Your task to perform on an android device: refresh tabs in the chrome app Image 0: 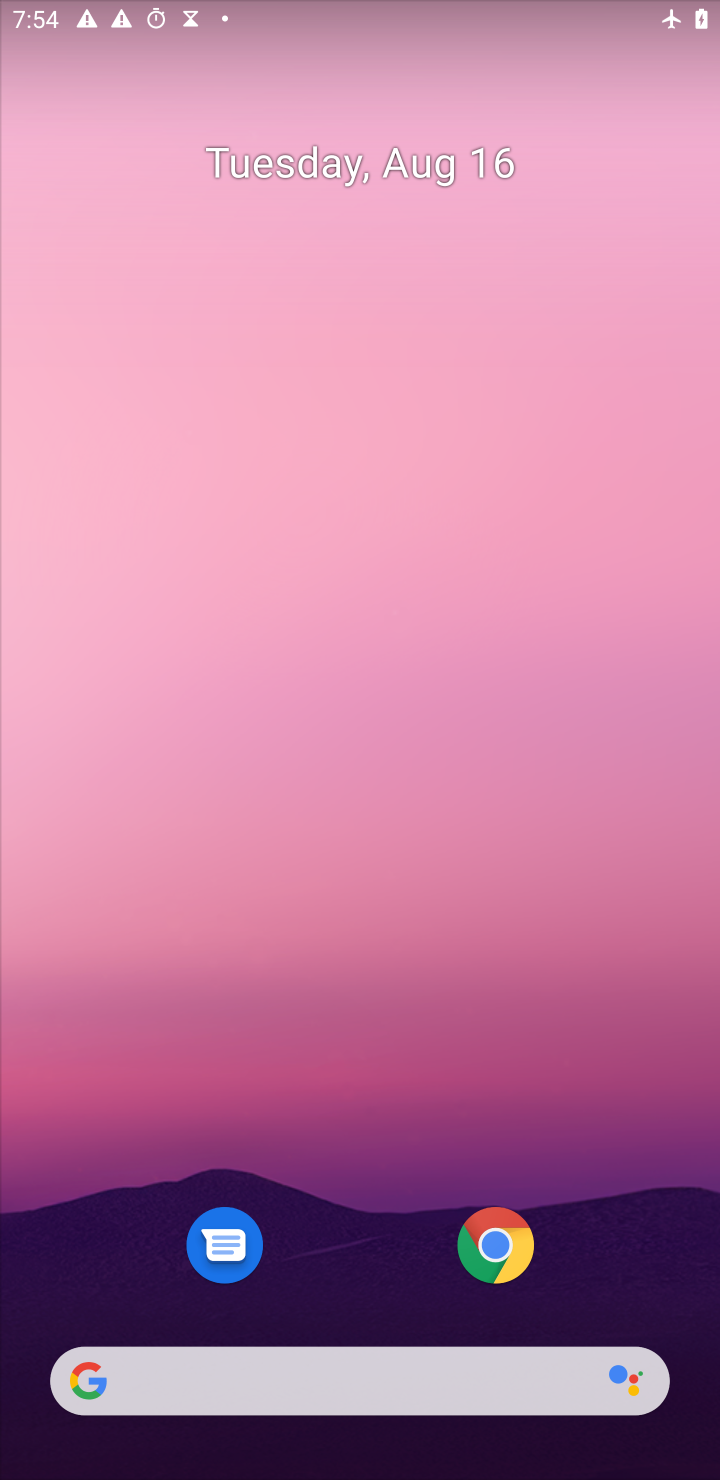
Step 0: press home button
Your task to perform on an android device: refresh tabs in the chrome app Image 1: 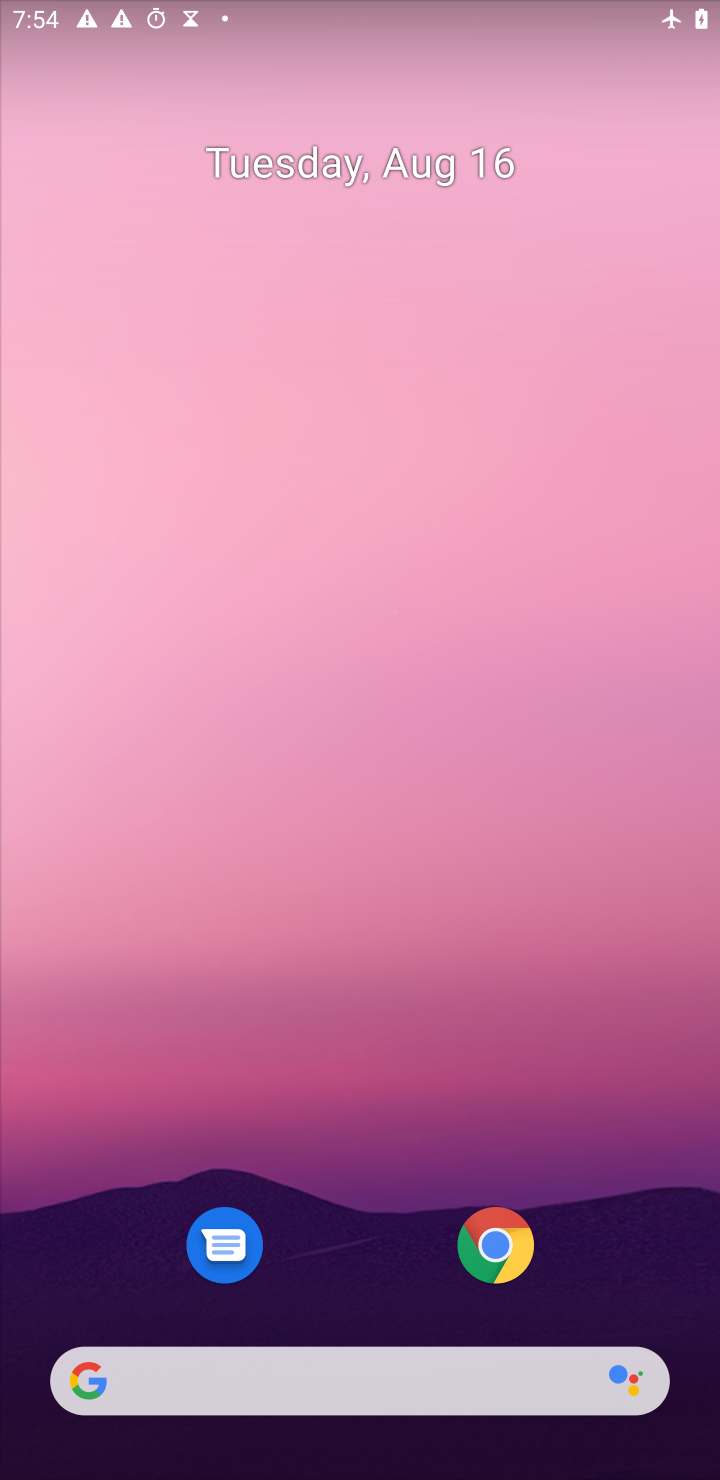
Step 1: drag from (532, 26) to (716, 1136)
Your task to perform on an android device: refresh tabs in the chrome app Image 2: 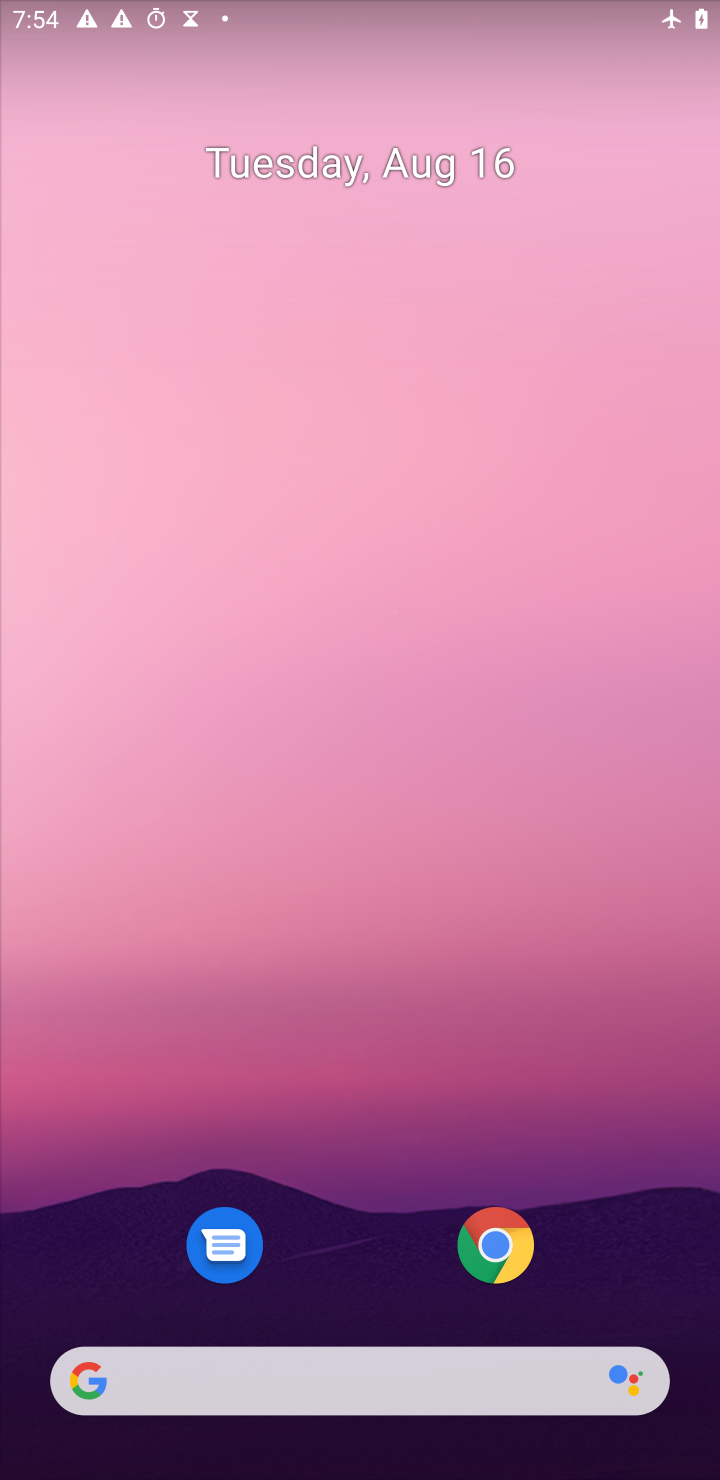
Step 2: click (500, 1263)
Your task to perform on an android device: refresh tabs in the chrome app Image 3: 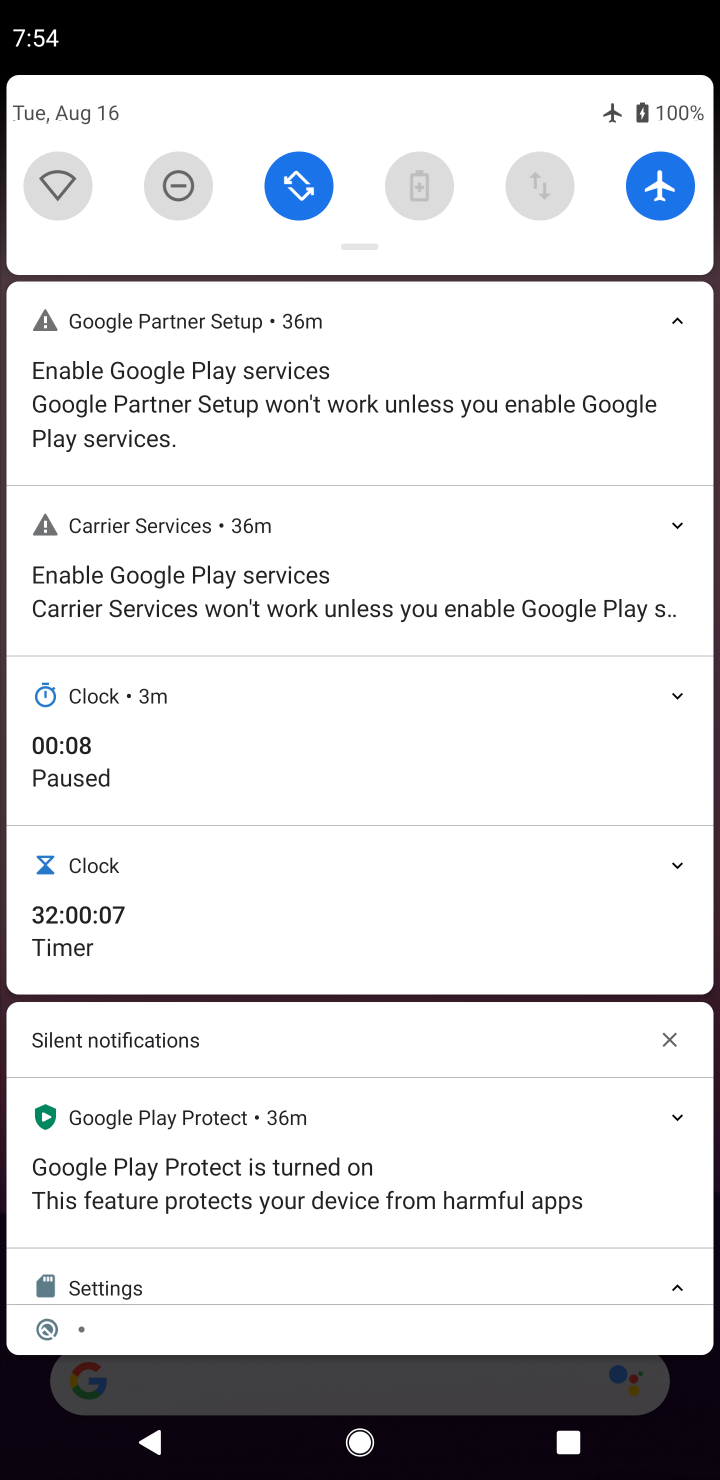
Step 3: drag from (416, 1384) to (374, 0)
Your task to perform on an android device: refresh tabs in the chrome app Image 4: 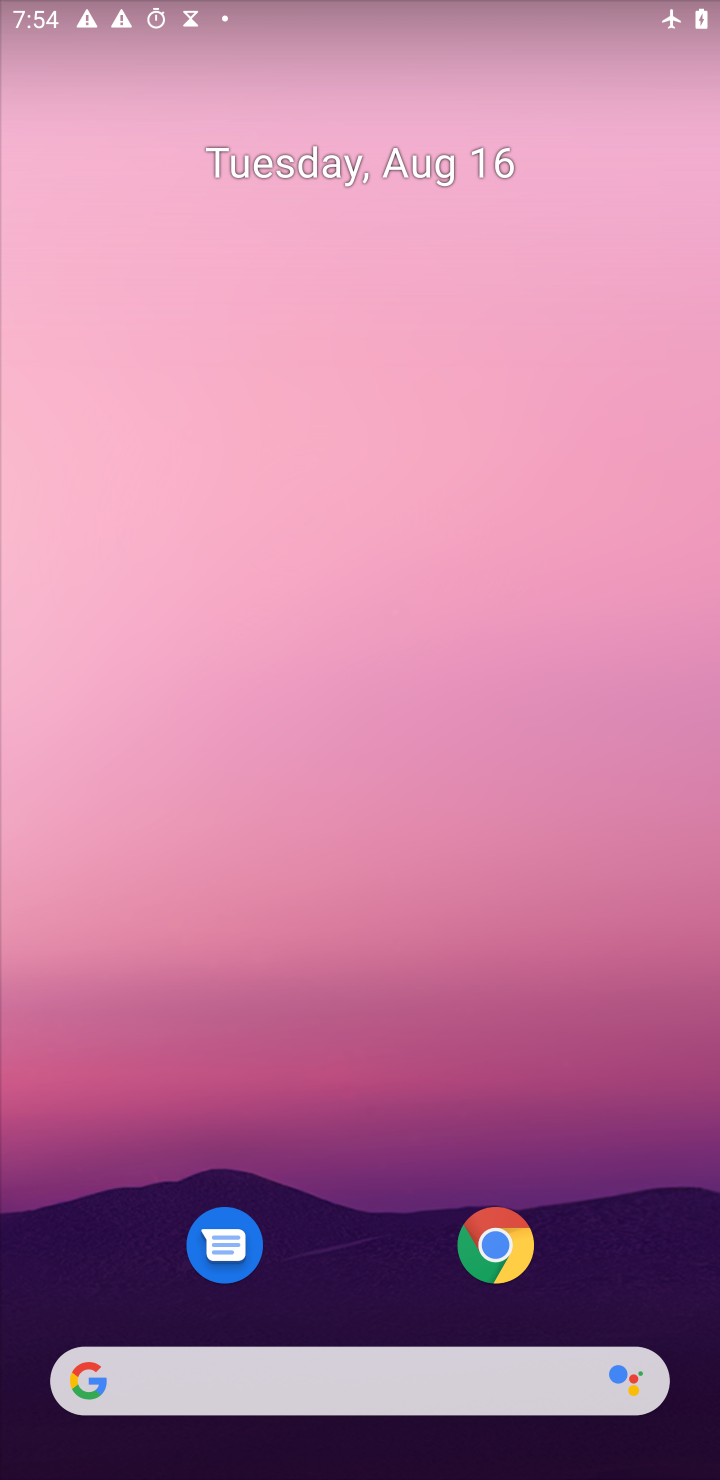
Step 4: click (504, 1229)
Your task to perform on an android device: refresh tabs in the chrome app Image 5: 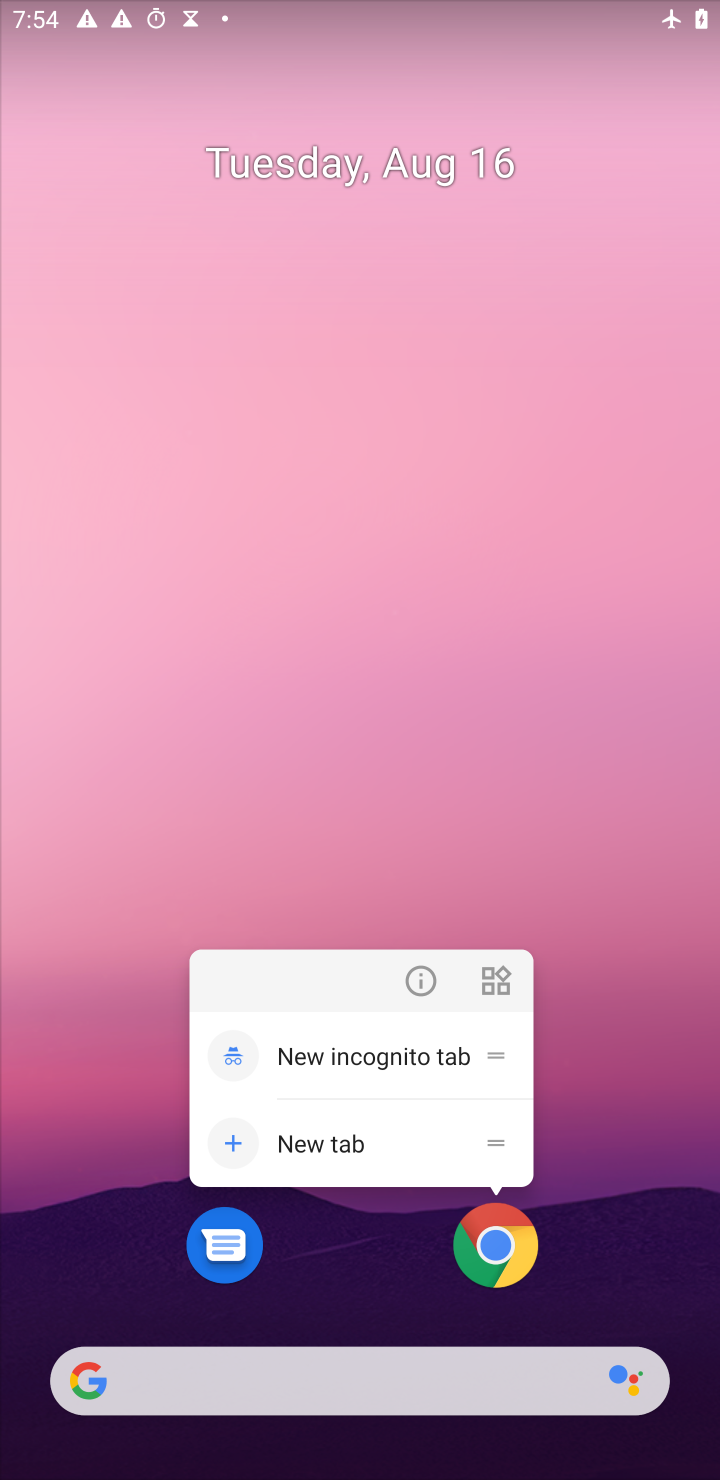
Step 5: click (514, 1258)
Your task to perform on an android device: refresh tabs in the chrome app Image 6: 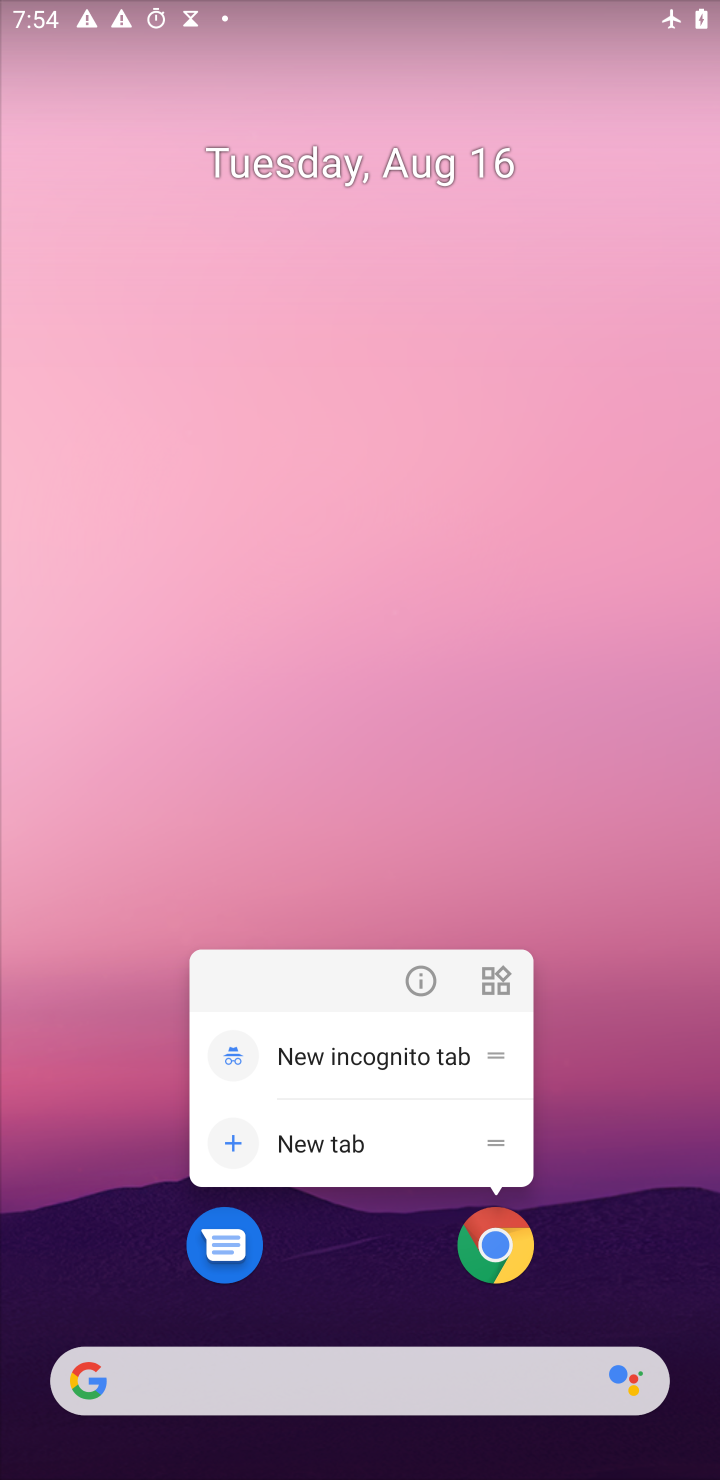
Step 6: click (510, 1256)
Your task to perform on an android device: refresh tabs in the chrome app Image 7: 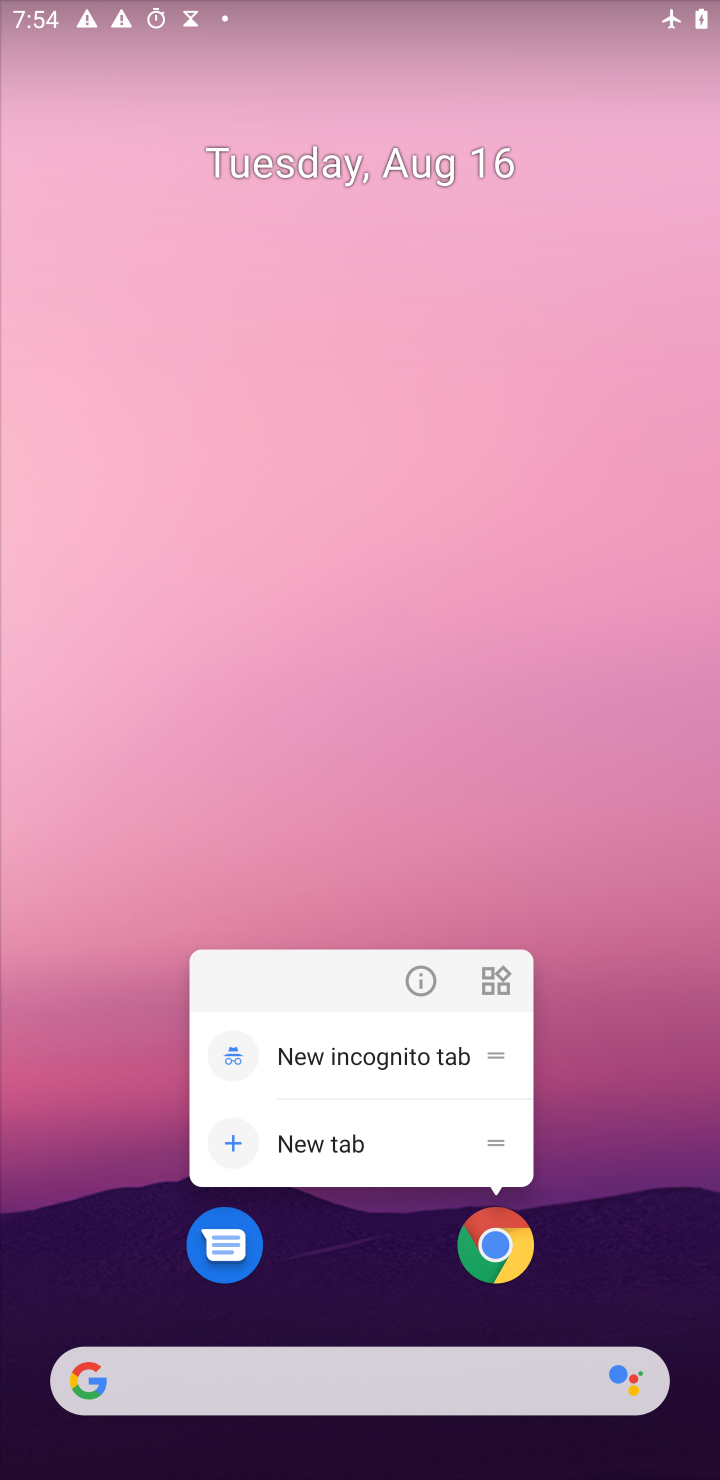
Step 7: click (483, 1259)
Your task to perform on an android device: refresh tabs in the chrome app Image 8: 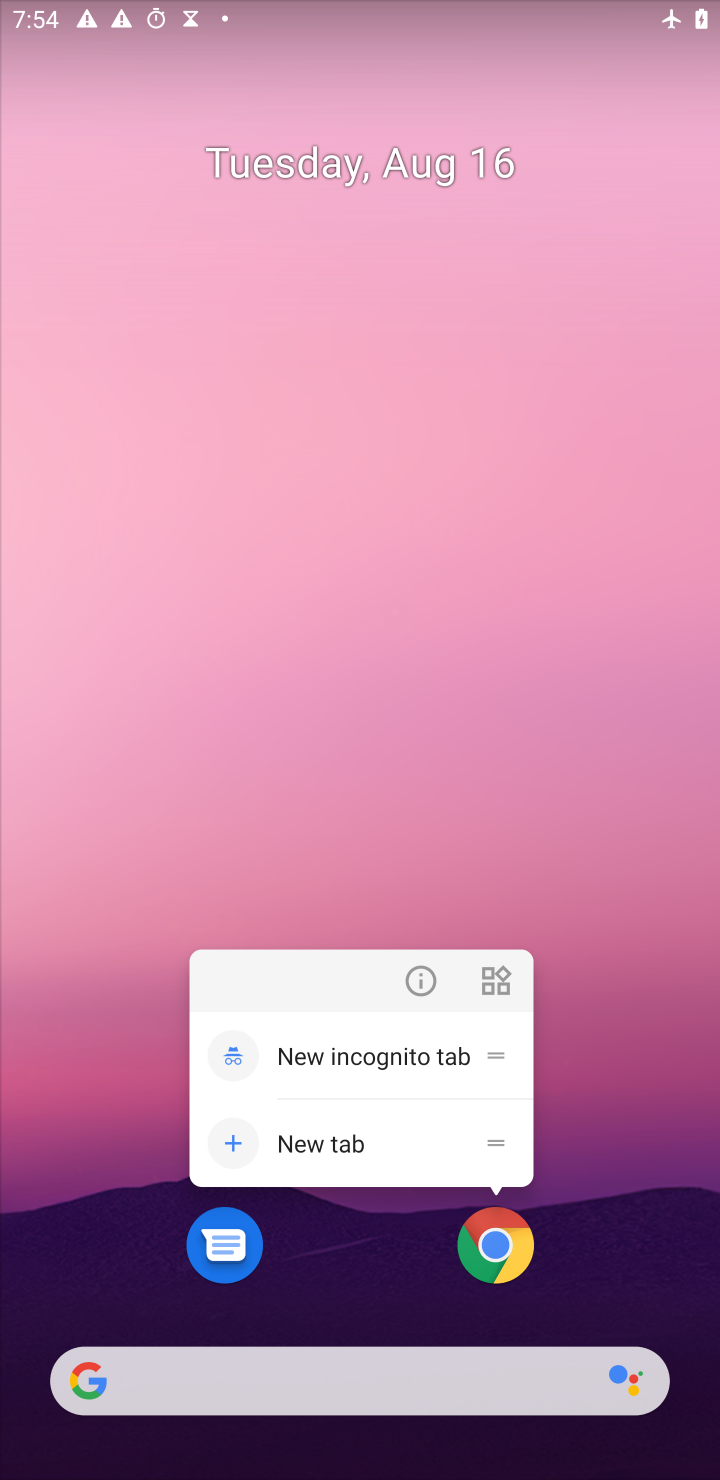
Step 8: press home button
Your task to perform on an android device: refresh tabs in the chrome app Image 9: 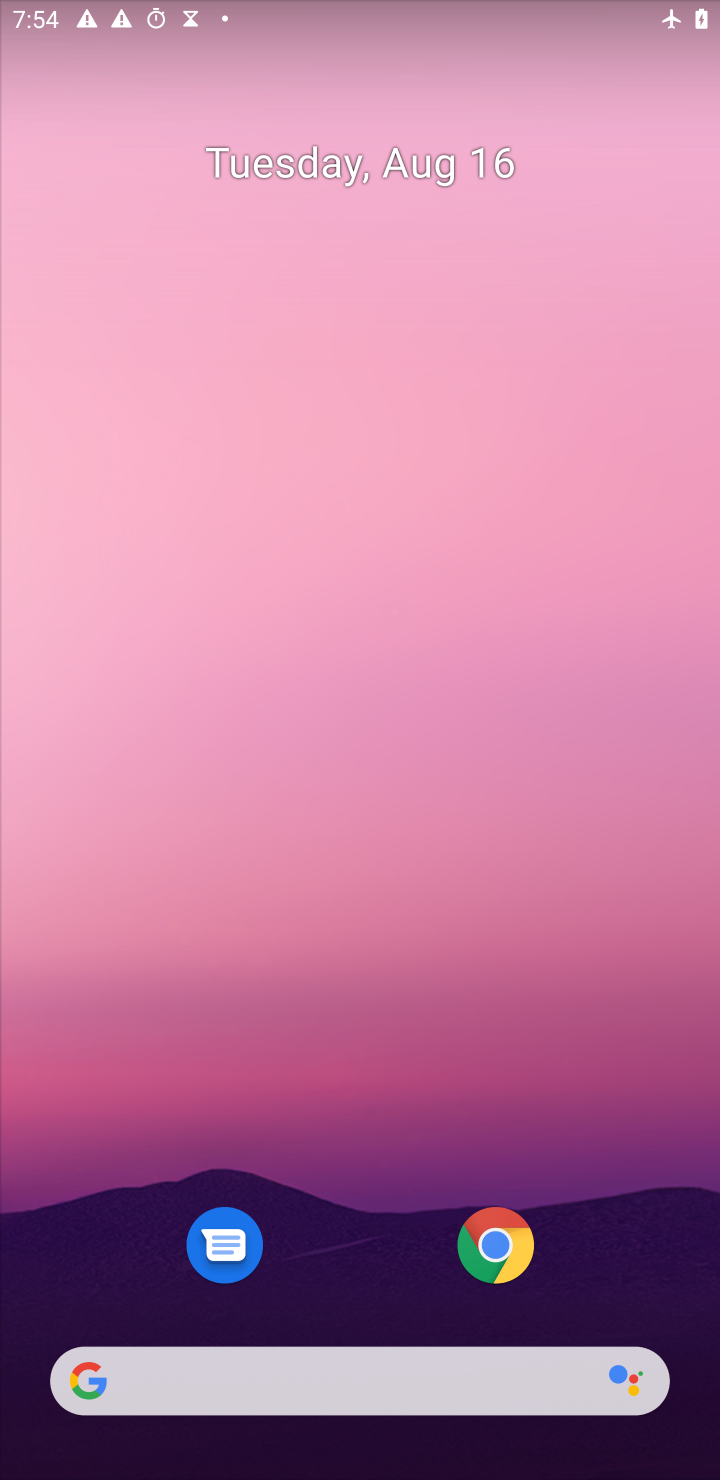
Step 9: click (280, 26)
Your task to perform on an android device: refresh tabs in the chrome app Image 10: 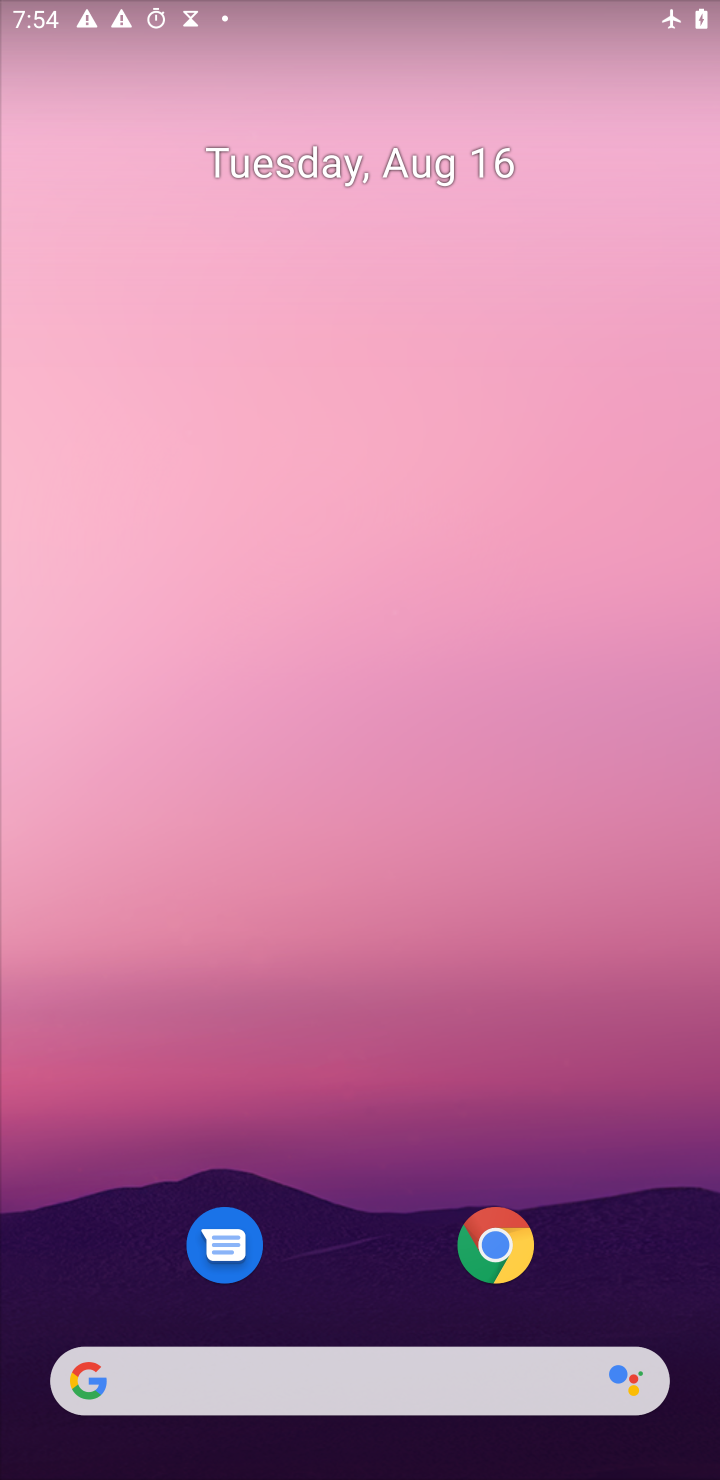
Step 10: drag from (368, 1007) to (373, 123)
Your task to perform on an android device: refresh tabs in the chrome app Image 11: 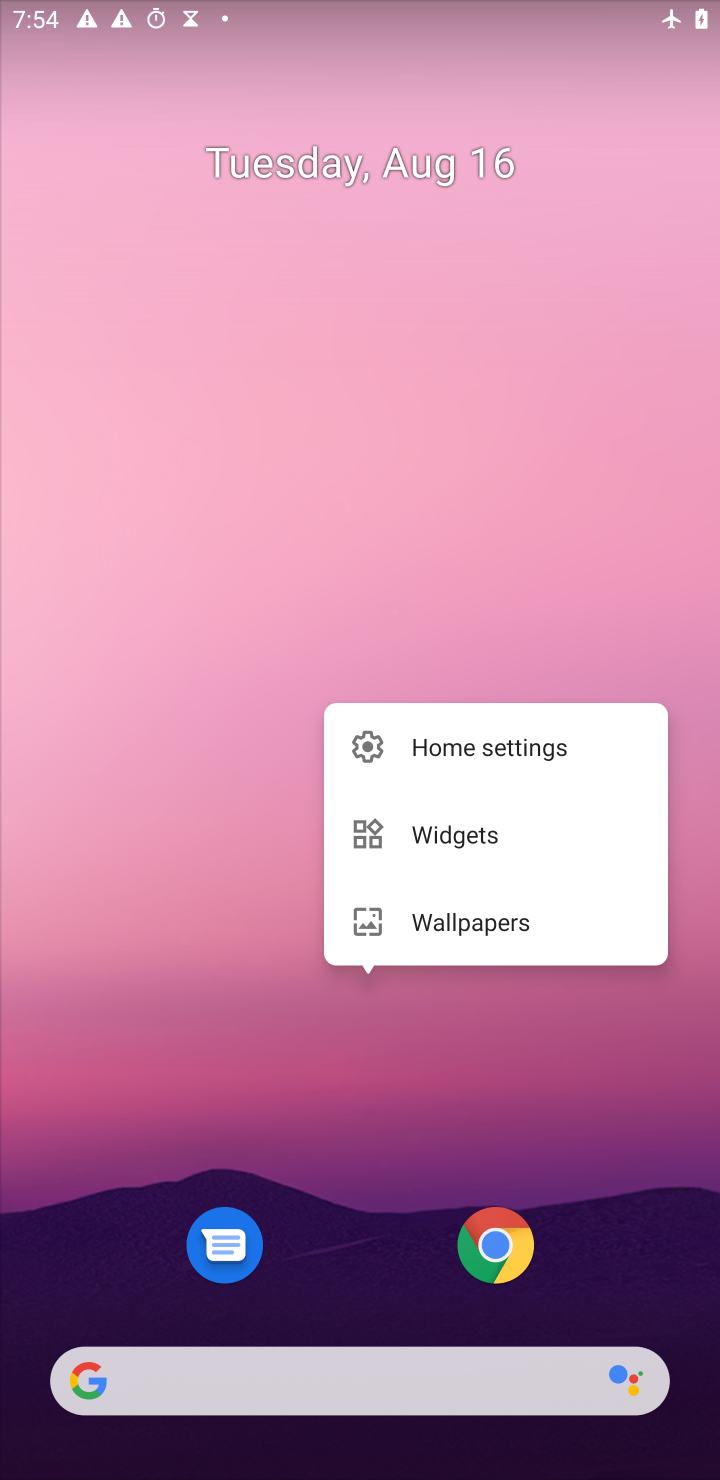
Step 11: press home button
Your task to perform on an android device: refresh tabs in the chrome app Image 12: 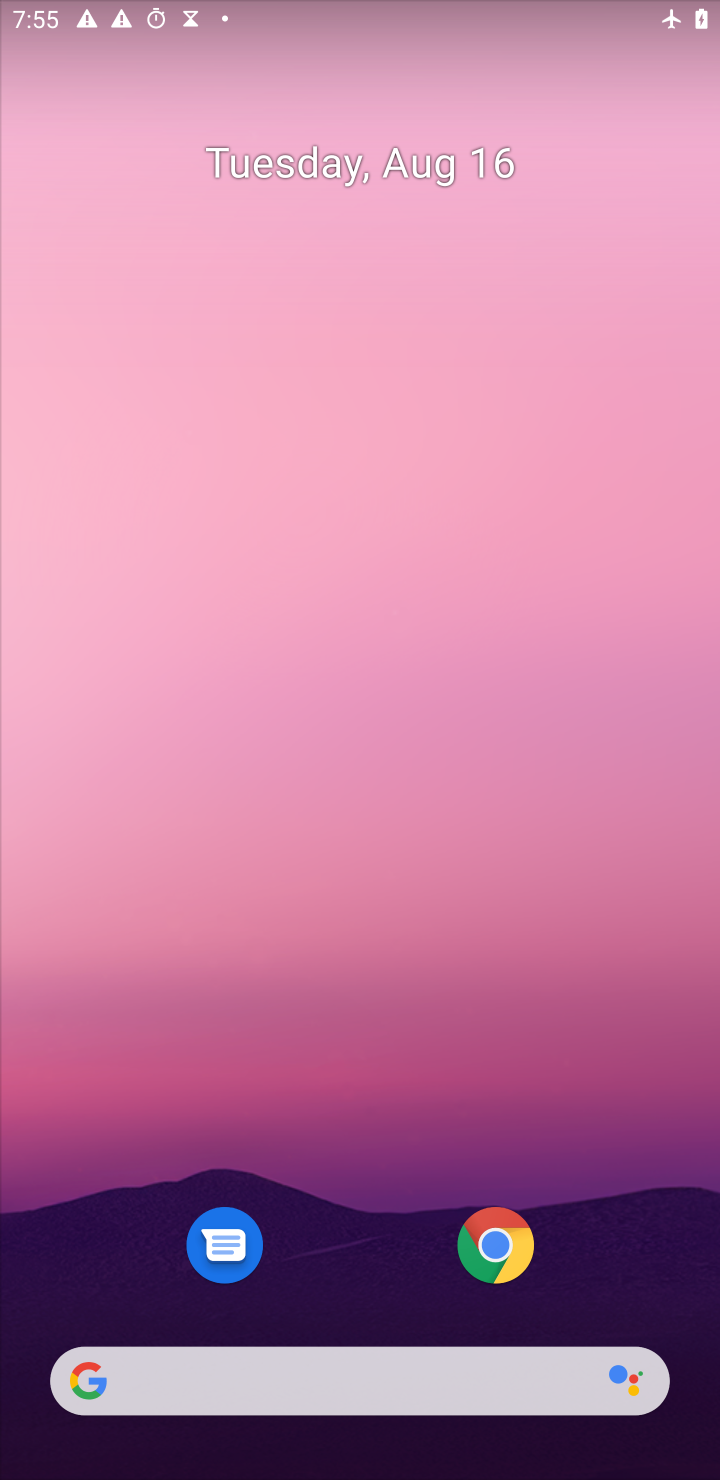
Step 12: drag from (336, 1190) to (313, 299)
Your task to perform on an android device: refresh tabs in the chrome app Image 13: 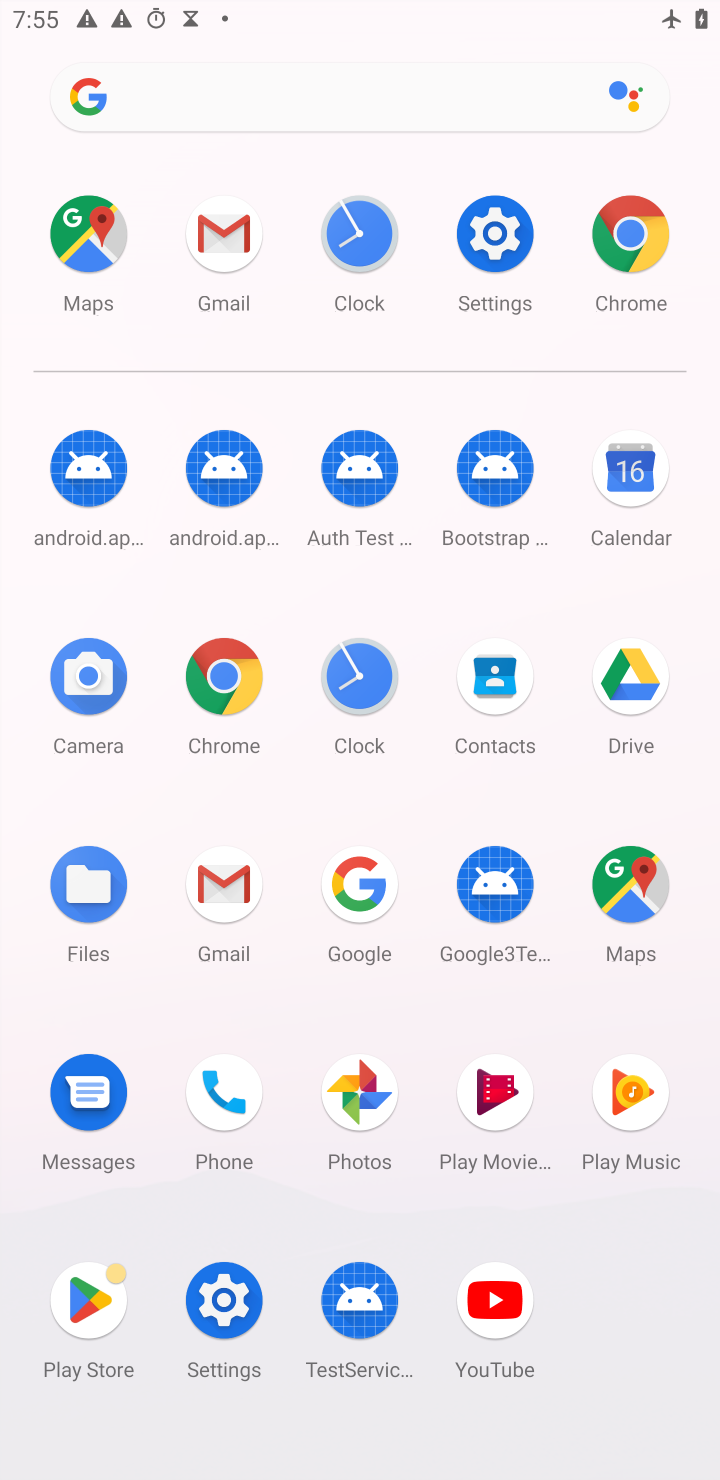
Step 13: click (643, 237)
Your task to perform on an android device: refresh tabs in the chrome app Image 14: 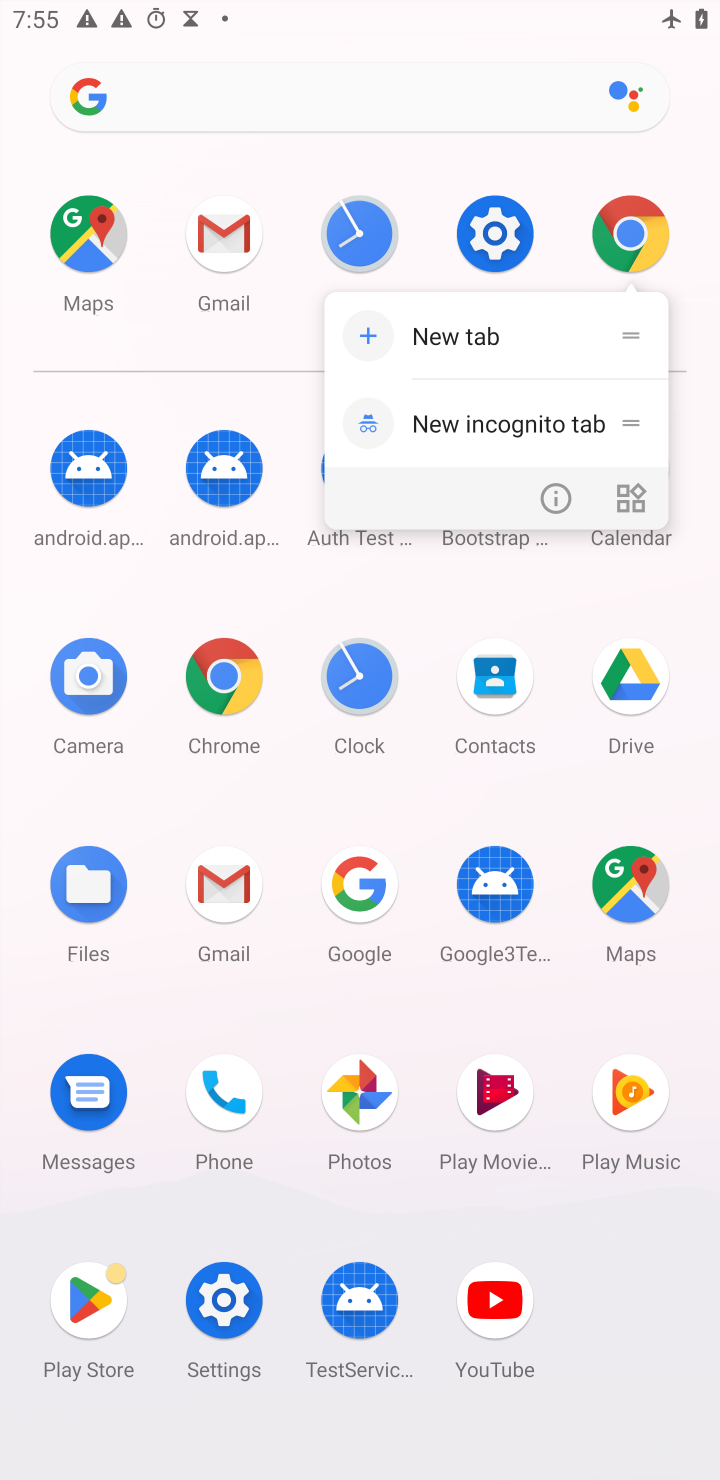
Step 14: click (653, 225)
Your task to perform on an android device: refresh tabs in the chrome app Image 15: 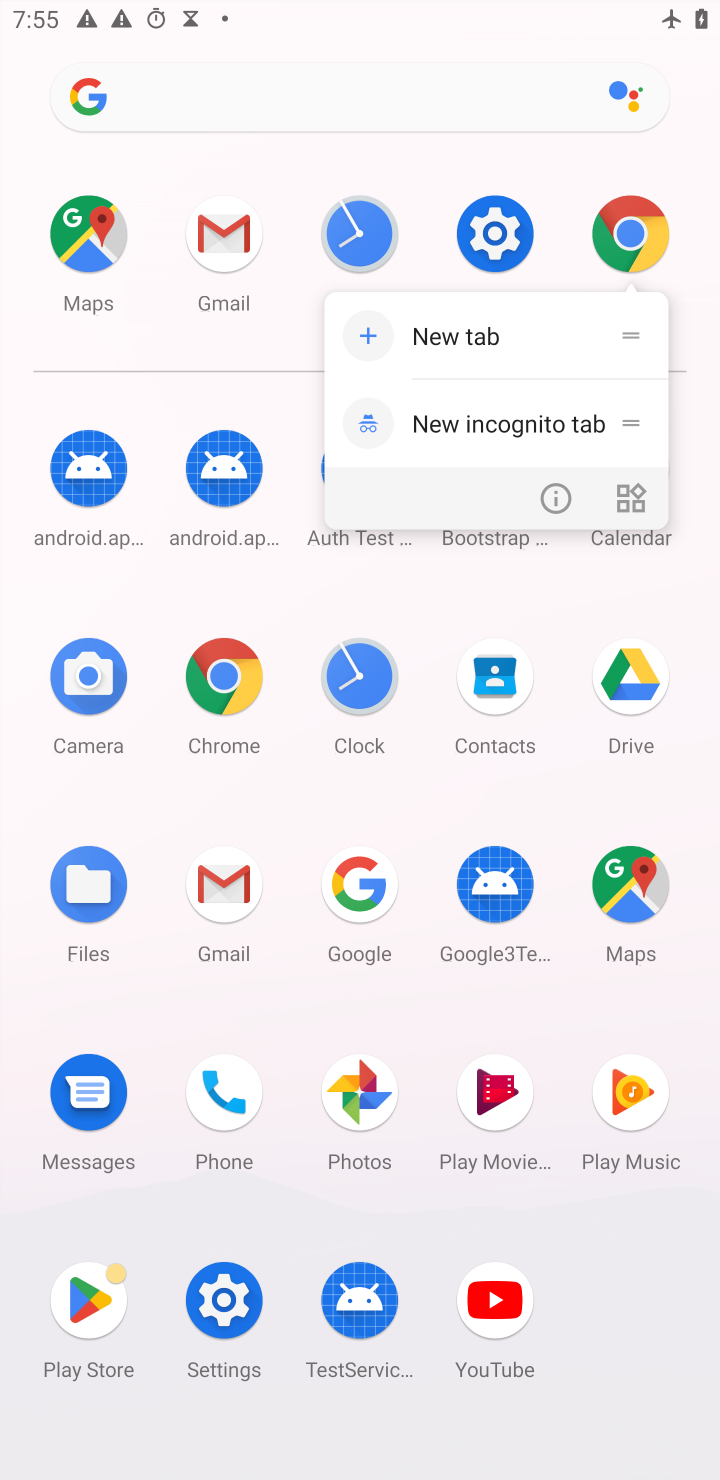
Step 15: click (653, 221)
Your task to perform on an android device: refresh tabs in the chrome app Image 16: 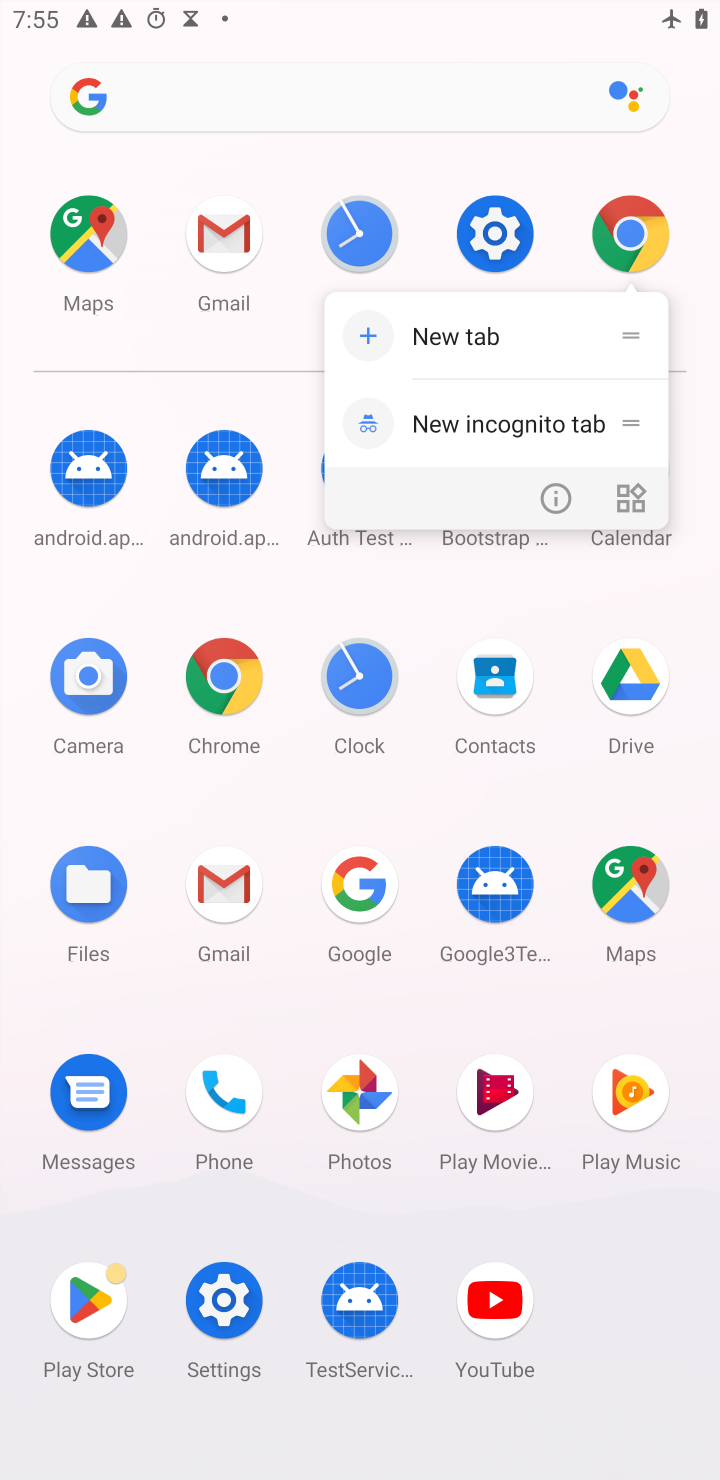
Step 16: click (616, 234)
Your task to perform on an android device: refresh tabs in the chrome app Image 17: 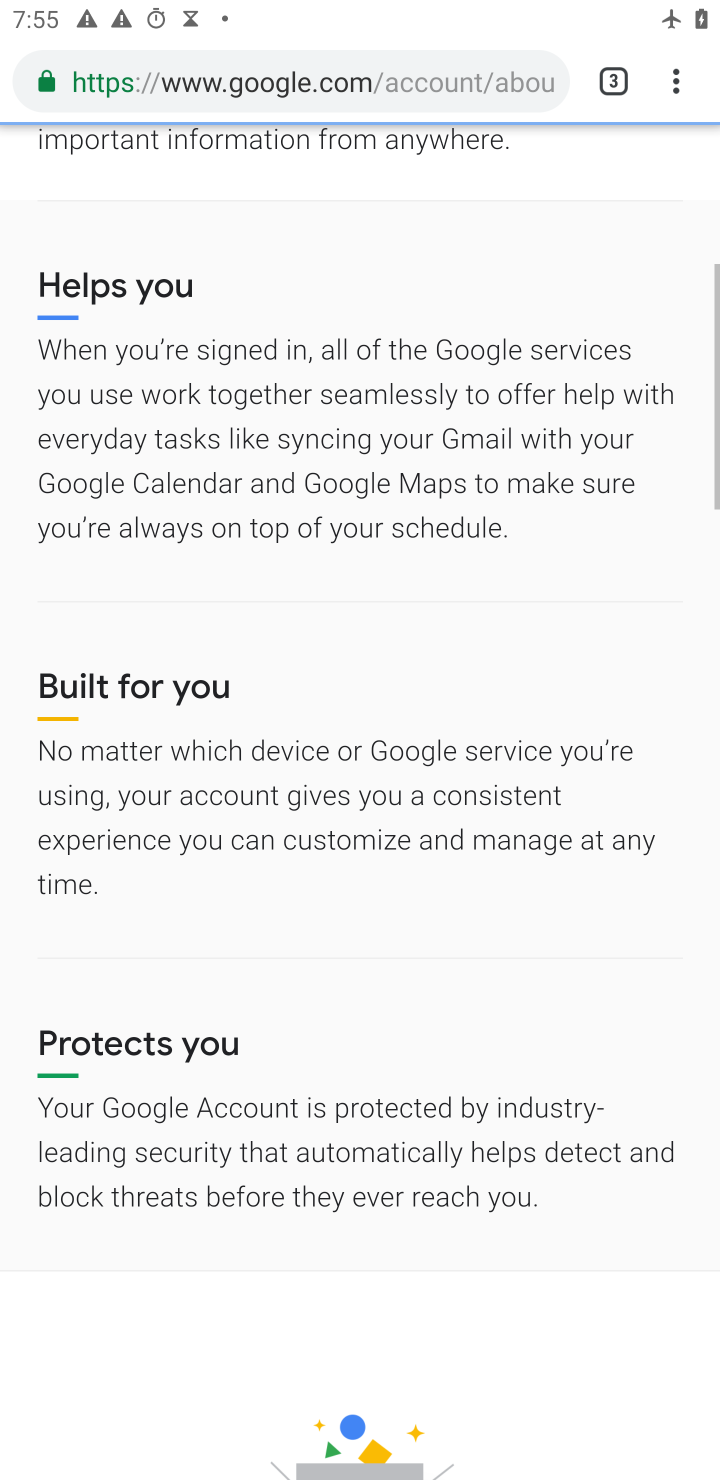
Step 17: click (671, 77)
Your task to perform on an android device: refresh tabs in the chrome app Image 18: 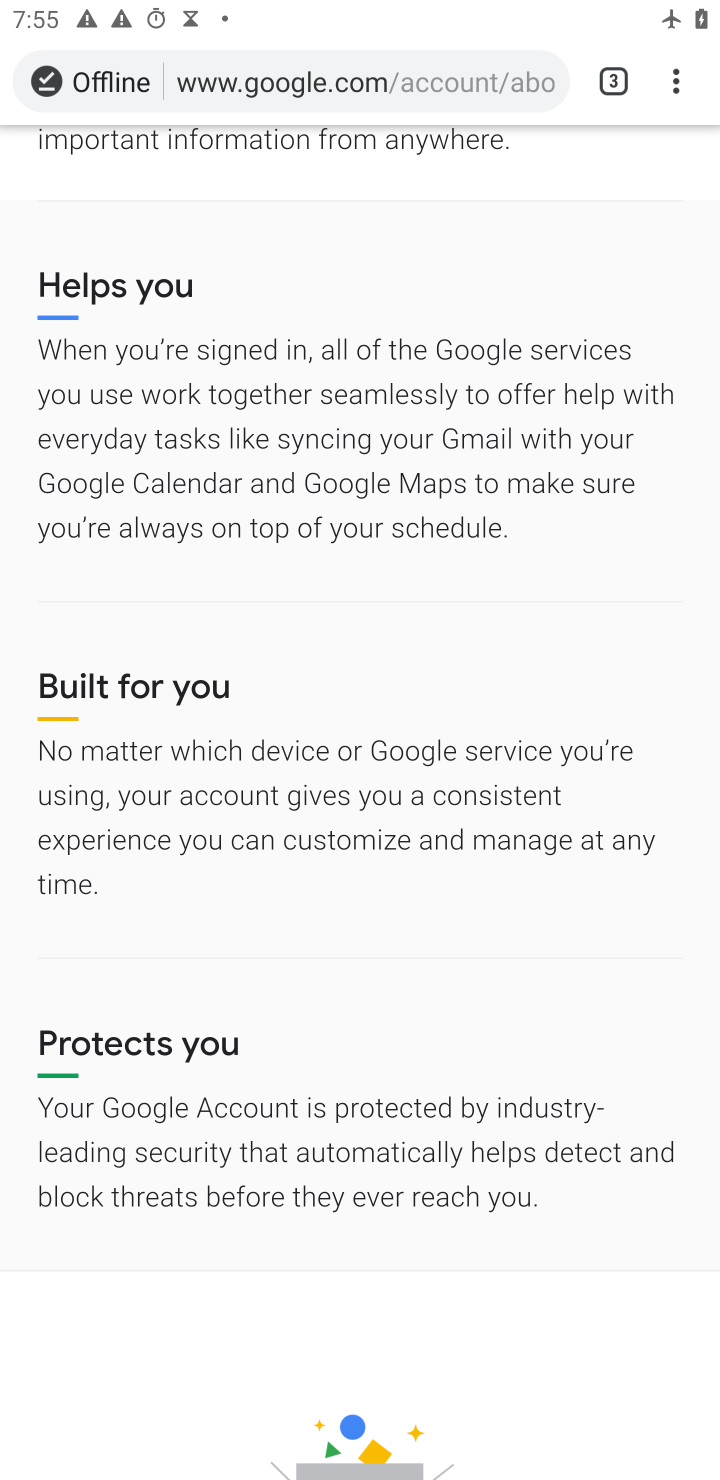
Step 18: click (671, 77)
Your task to perform on an android device: refresh tabs in the chrome app Image 19: 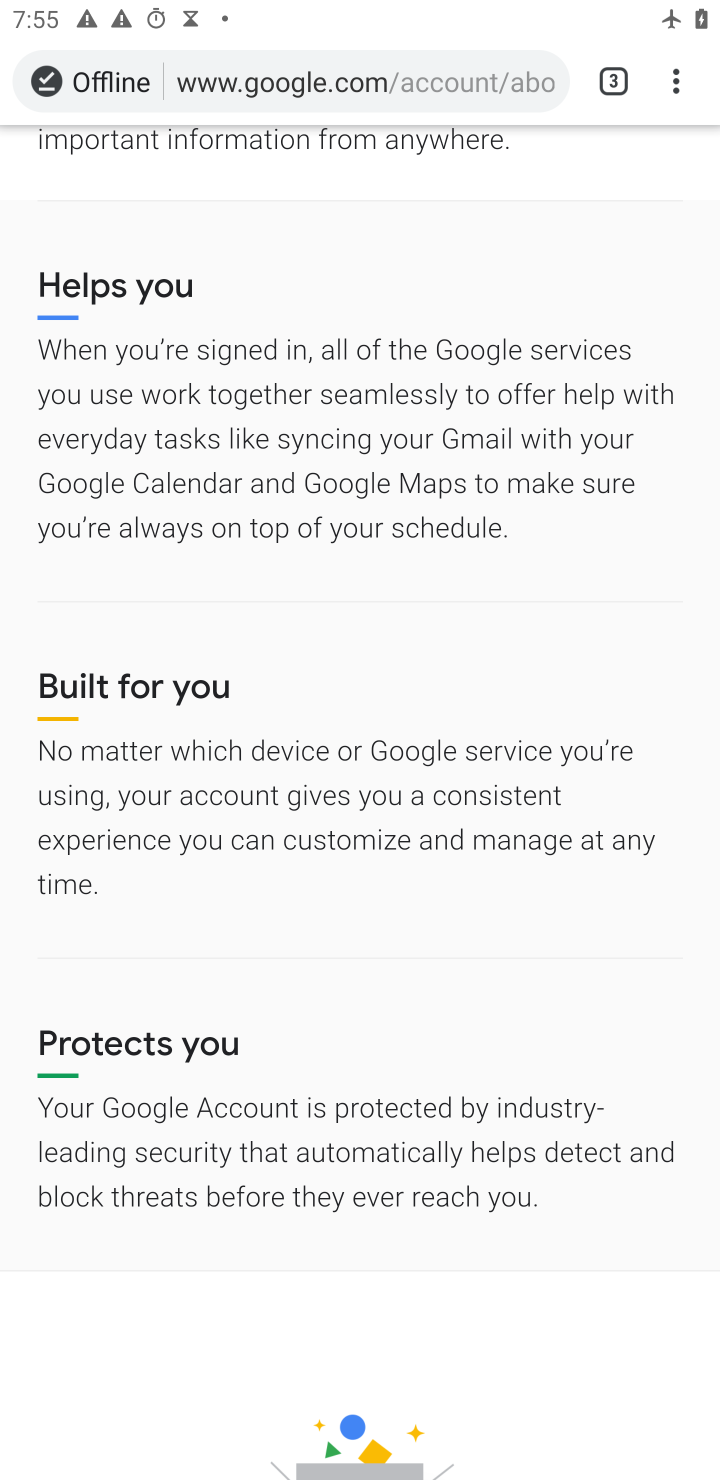
Step 19: click (671, 82)
Your task to perform on an android device: refresh tabs in the chrome app Image 20: 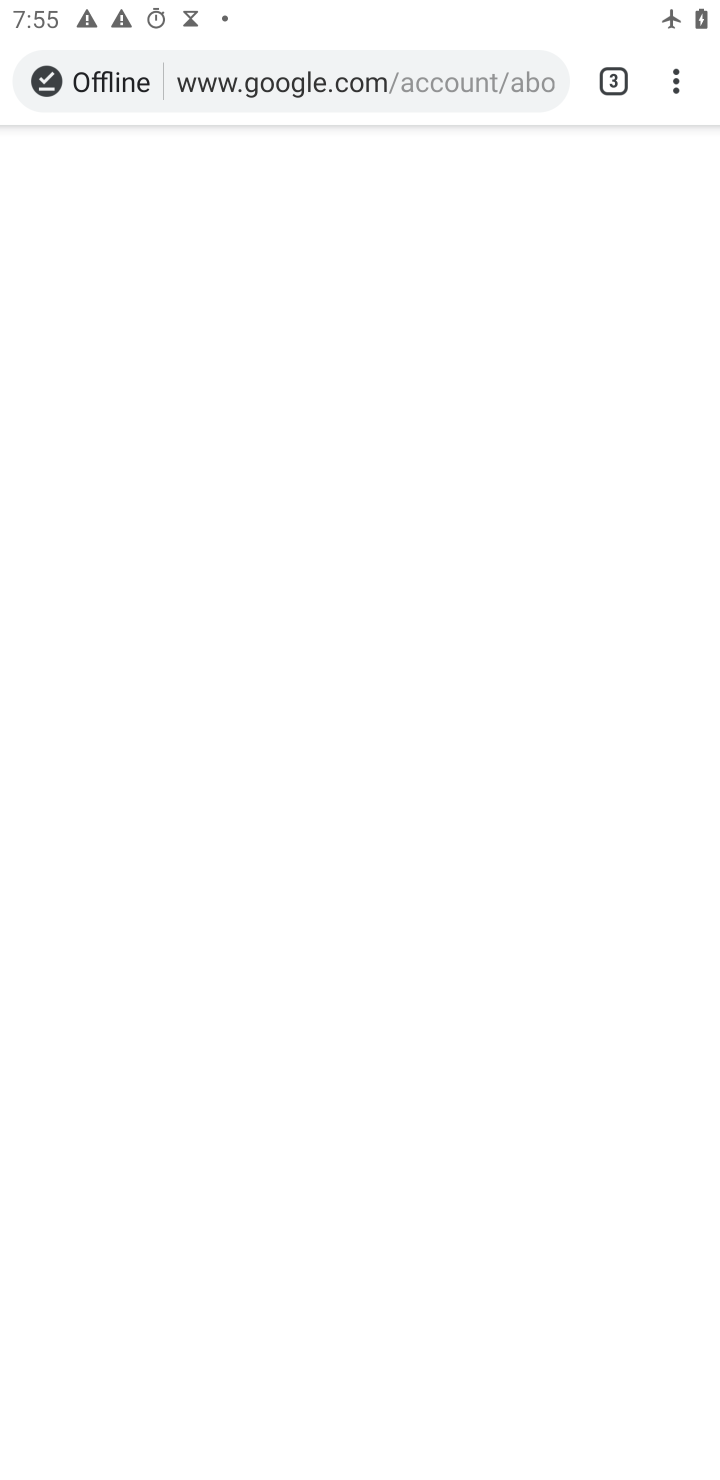
Step 20: task complete